Your task to perform on an android device: Go to Maps Image 0: 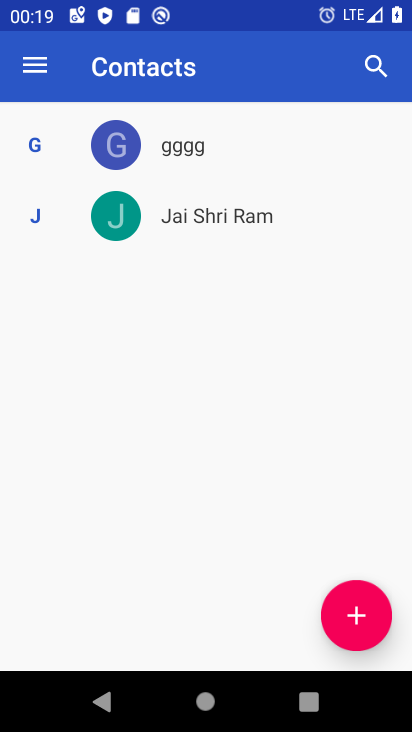
Step 0: press home button
Your task to perform on an android device: Go to Maps Image 1: 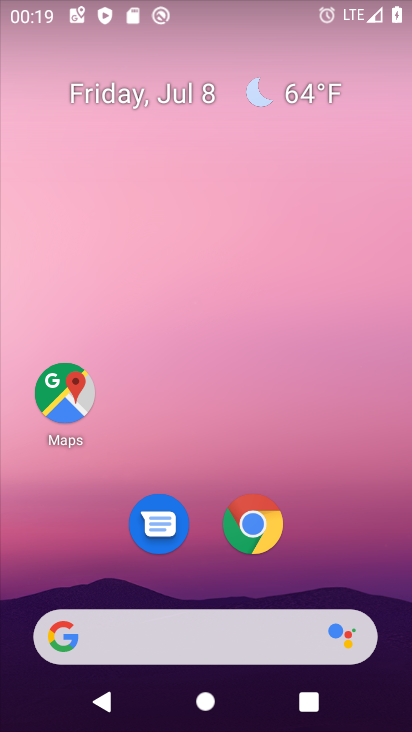
Step 1: click (65, 400)
Your task to perform on an android device: Go to Maps Image 2: 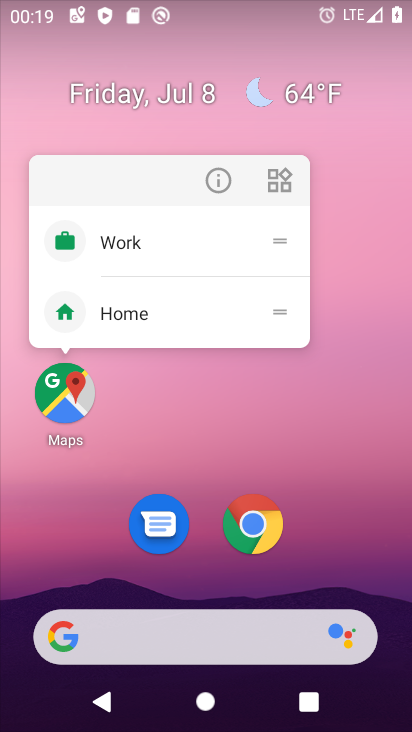
Step 2: click (65, 402)
Your task to perform on an android device: Go to Maps Image 3: 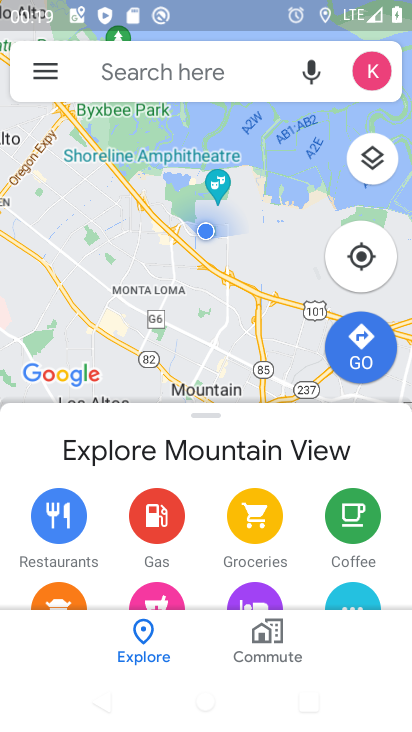
Step 3: task complete